Your task to perform on an android device: turn on the 24-hour format for clock Image 0: 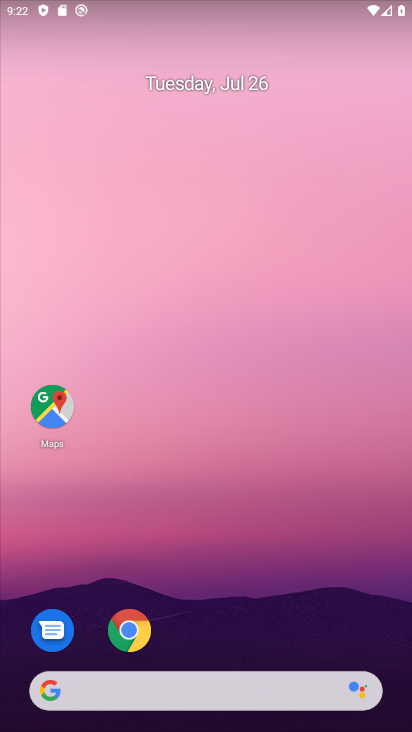
Step 0: drag from (257, 604) to (283, 8)
Your task to perform on an android device: turn on the 24-hour format for clock Image 1: 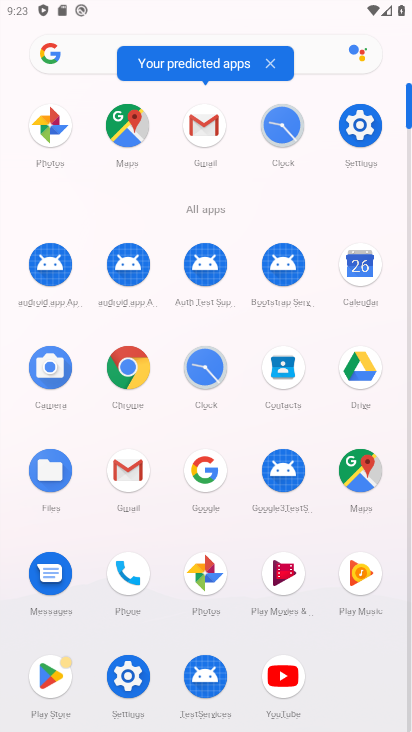
Step 1: click (276, 122)
Your task to perform on an android device: turn on the 24-hour format for clock Image 2: 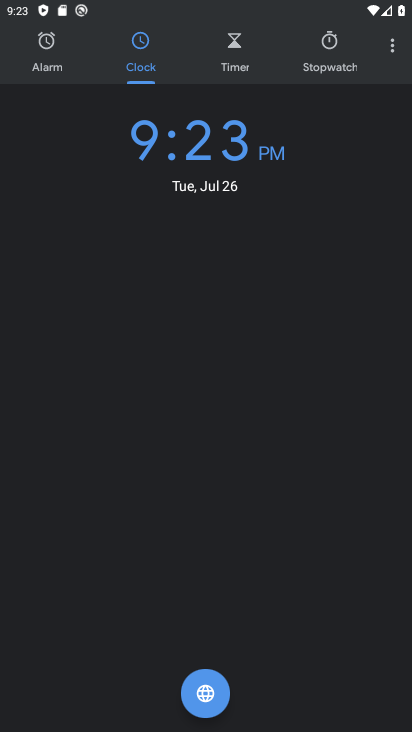
Step 2: click (394, 47)
Your task to perform on an android device: turn on the 24-hour format for clock Image 3: 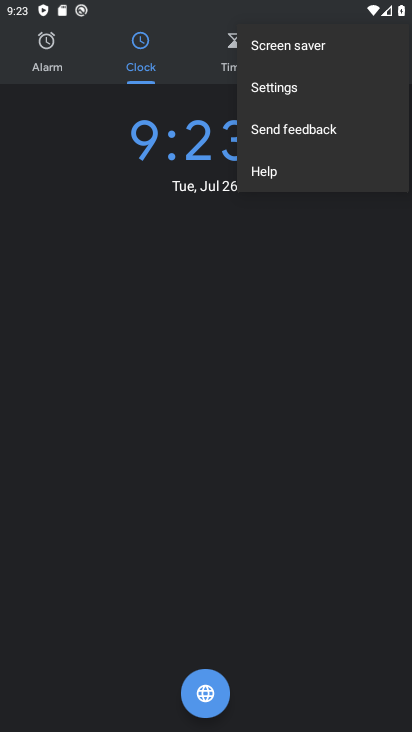
Step 3: click (278, 81)
Your task to perform on an android device: turn on the 24-hour format for clock Image 4: 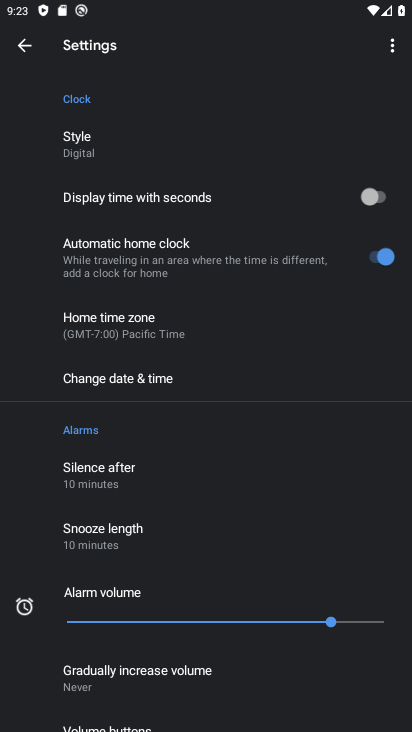
Step 4: click (142, 380)
Your task to perform on an android device: turn on the 24-hour format for clock Image 5: 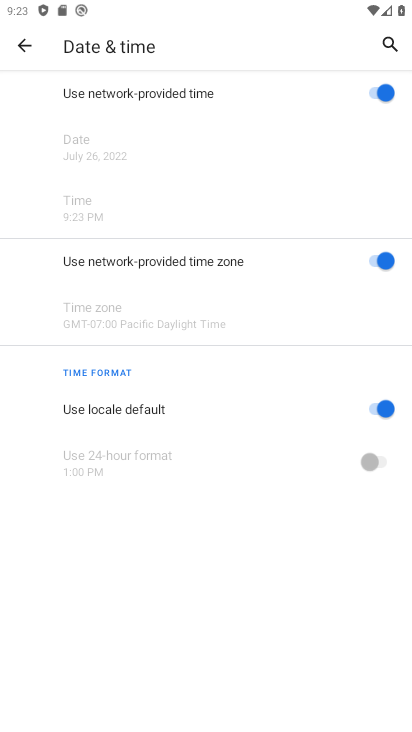
Step 5: click (383, 402)
Your task to perform on an android device: turn on the 24-hour format for clock Image 6: 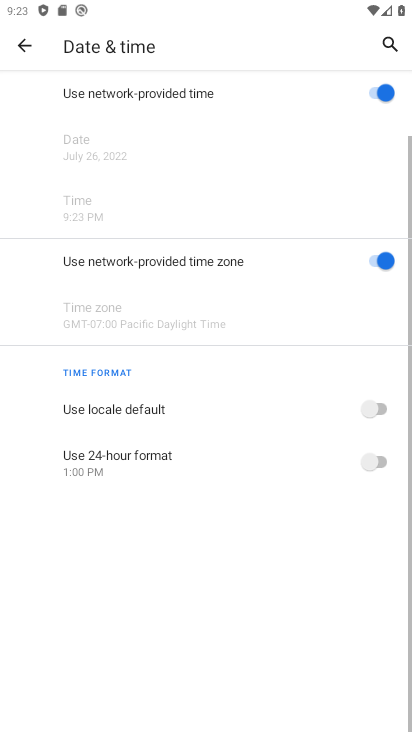
Step 6: click (372, 456)
Your task to perform on an android device: turn on the 24-hour format for clock Image 7: 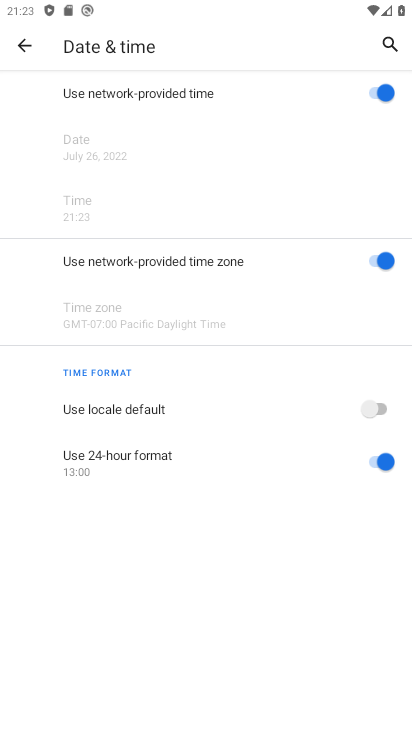
Step 7: task complete